Your task to perform on an android device: open the mobile data screen to see how much data has been used Image 0: 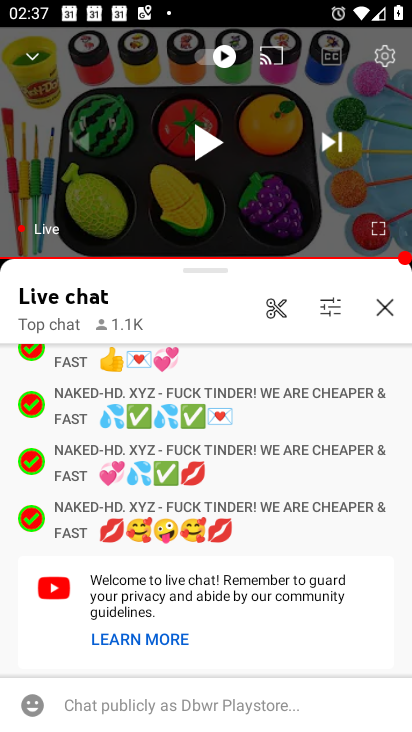
Step 0: press home button
Your task to perform on an android device: open the mobile data screen to see how much data has been used Image 1: 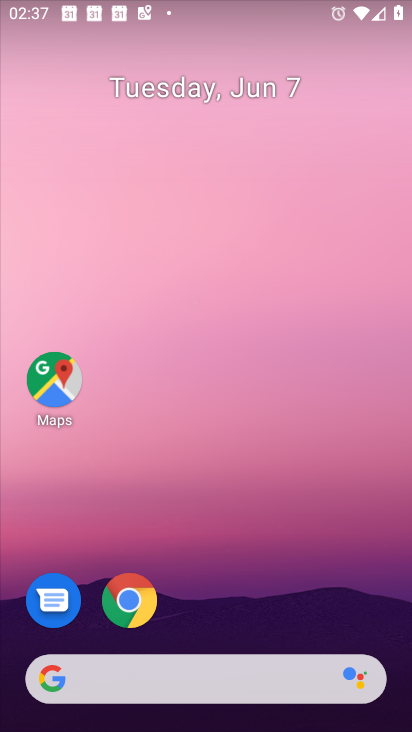
Step 1: drag from (248, 729) to (265, 71)
Your task to perform on an android device: open the mobile data screen to see how much data has been used Image 2: 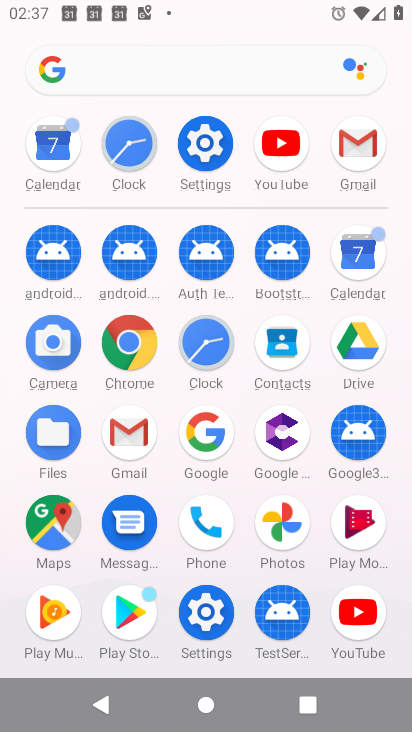
Step 2: click (213, 610)
Your task to perform on an android device: open the mobile data screen to see how much data has been used Image 3: 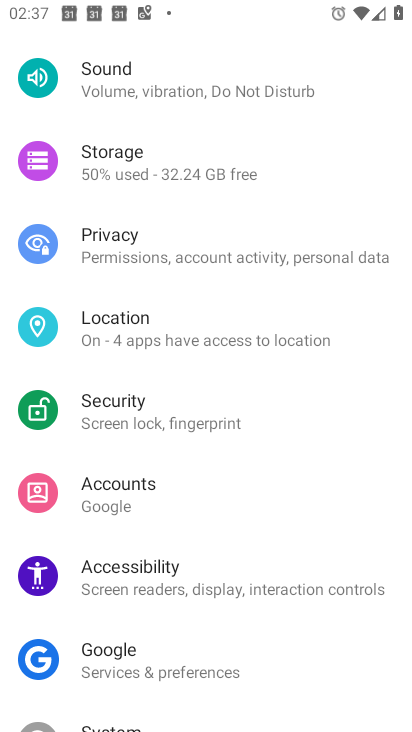
Step 3: drag from (290, 172) to (268, 482)
Your task to perform on an android device: open the mobile data screen to see how much data has been used Image 4: 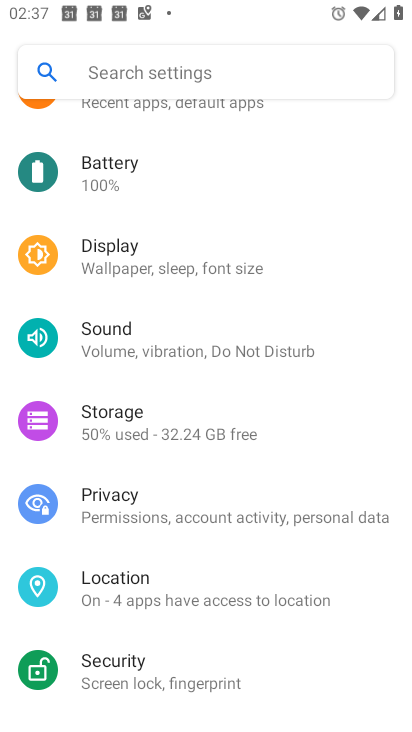
Step 4: drag from (273, 148) to (282, 523)
Your task to perform on an android device: open the mobile data screen to see how much data has been used Image 5: 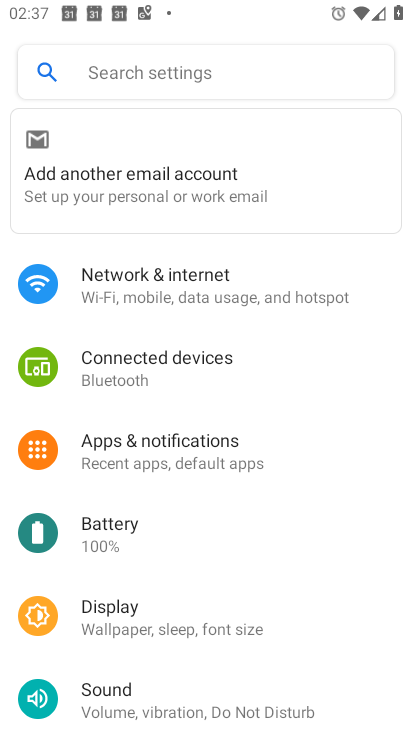
Step 5: click (138, 288)
Your task to perform on an android device: open the mobile data screen to see how much data has been used Image 6: 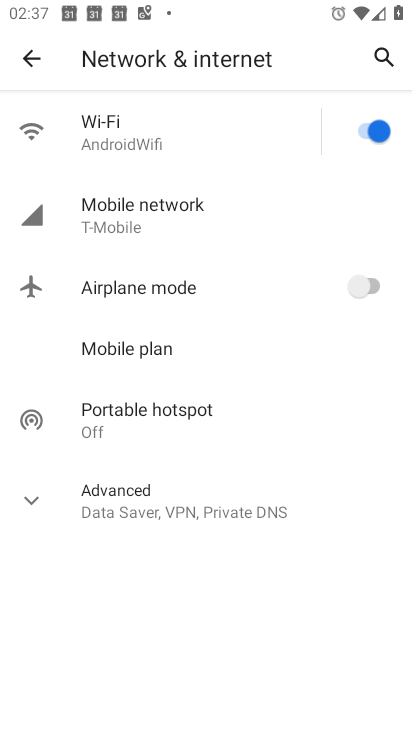
Step 6: click (128, 213)
Your task to perform on an android device: open the mobile data screen to see how much data has been used Image 7: 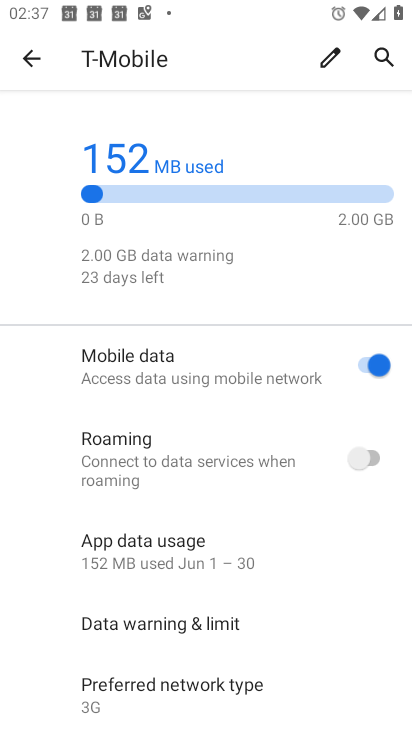
Step 7: click (146, 547)
Your task to perform on an android device: open the mobile data screen to see how much data has been used Image 8: 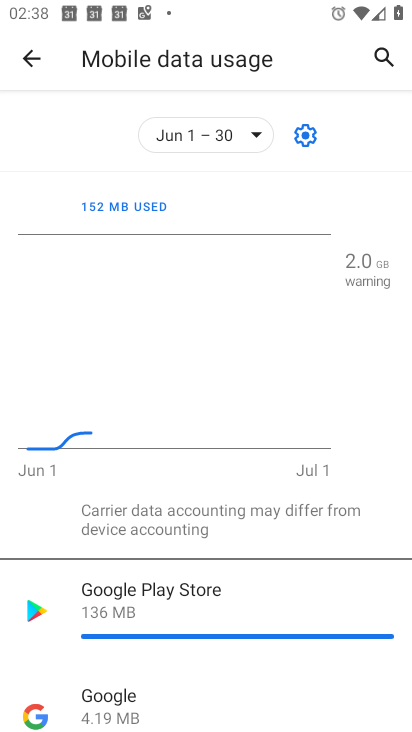
Step 8: task complete